Your task to perform on an android device: Show me popular games on the Play Store Image 0: 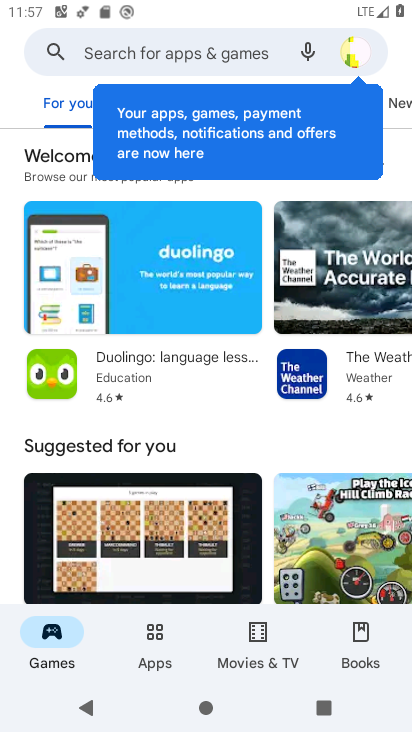
Step 0: click (220, 70)
Your task to perform on an android device: Show me popular games on the Play Store Image 1: 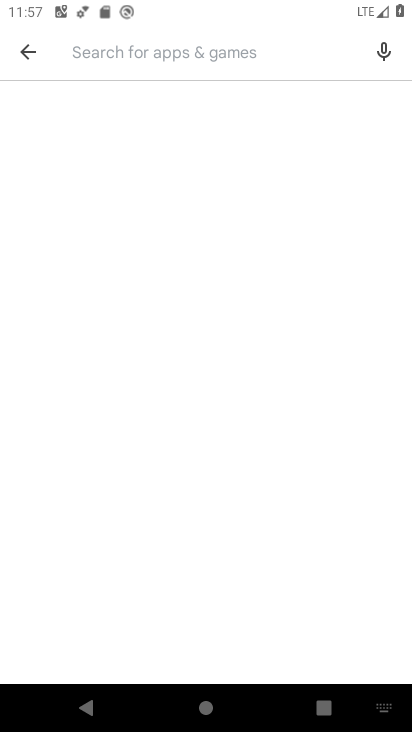
Step 1: type "popular "
Your task to perform on an android device: Show me popular games on the Play Store Image 2: 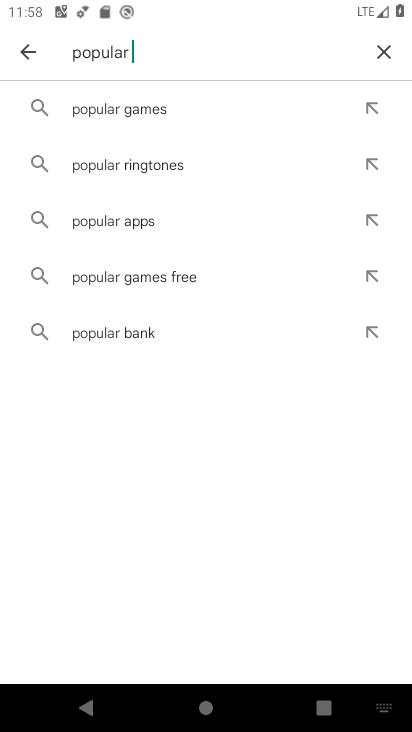
Step 2: click (130, 116)
Your task to perform on an android device: Show me popular games on the Play Store Image 3: 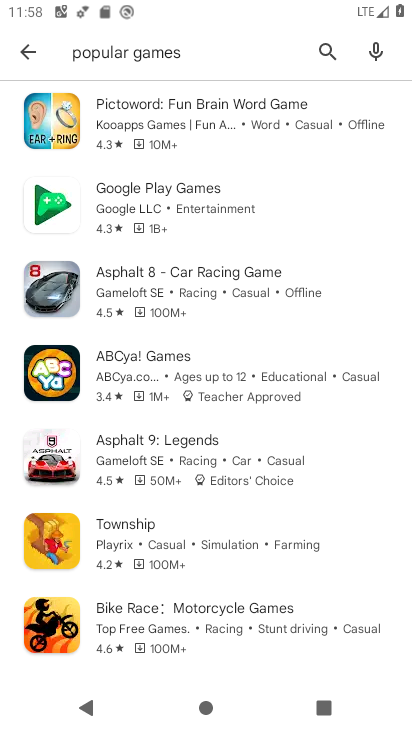
Step 3: task complete